Your task to perform on an android device: change text size in settings app Image 0: 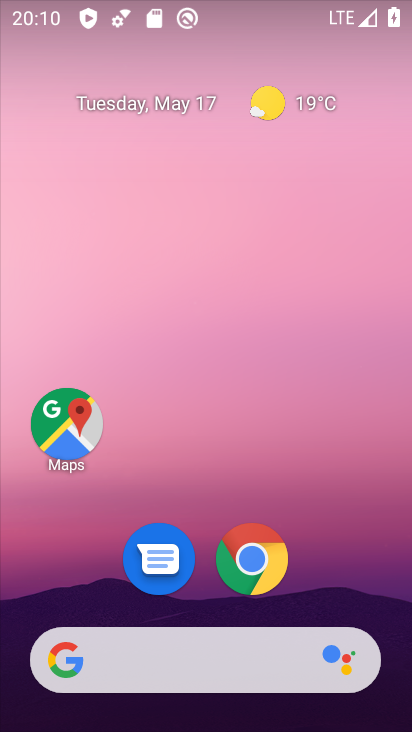
Step 0: drag from (200, 574) to (148, 0)
Your task to perform on an android device: change text size in settings app Image 1: 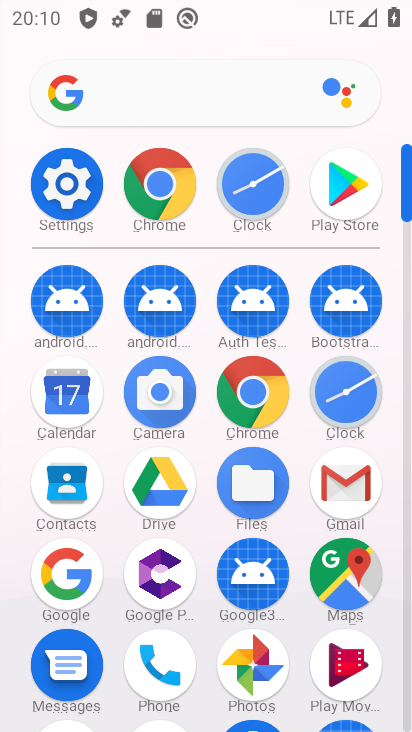
Step 1: click (66, 190)
Your task to perform on an android device: change text size in settings app Image 2: 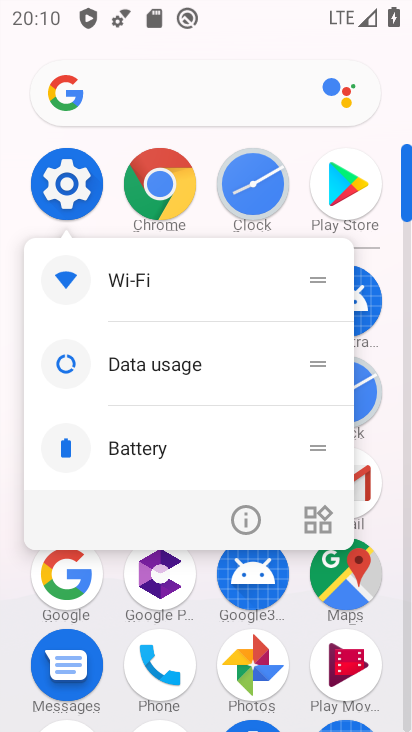
Step 2: click (241, 530)
Your task to perform on an android device: change text size in settings app Image 3: 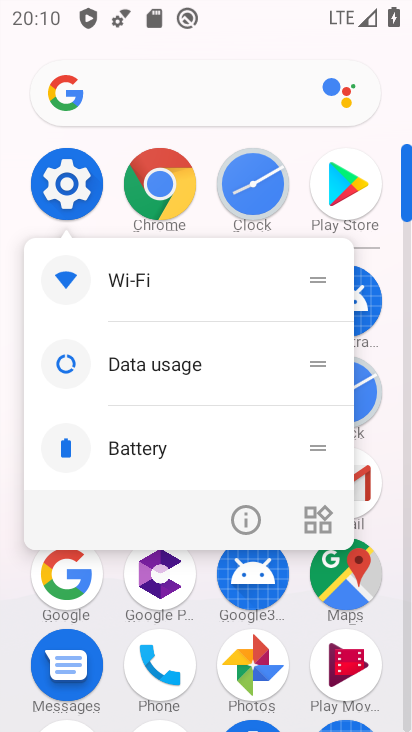
Step 3: click (240, 529)
Your task to perform on an android device: change text size in settings app Image 4: 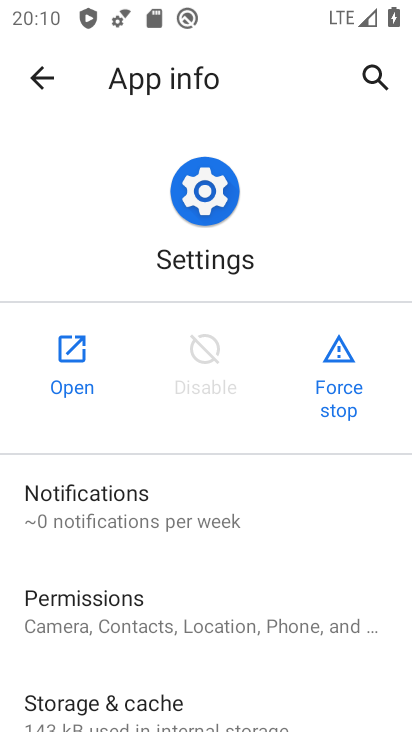
Step 4: click (60, 355)
Your task to perform on an android device: change text size in settings app Image 5: 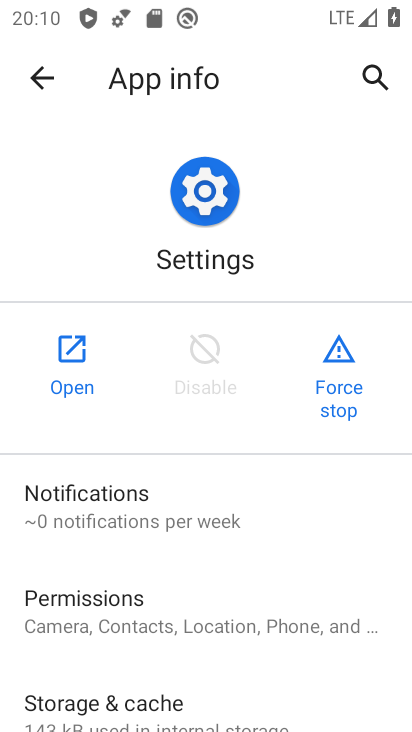
Step 5: click (60, 355)
Your task to perform on an android device: change text size in settings app Image 6: 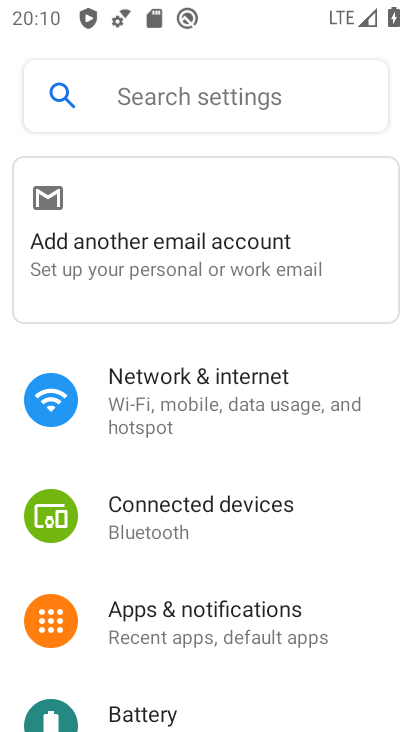
Step 6: drag from (184, 602) to (289, 21)
Your task to perform on an android device: change text size in settings app Image 7: 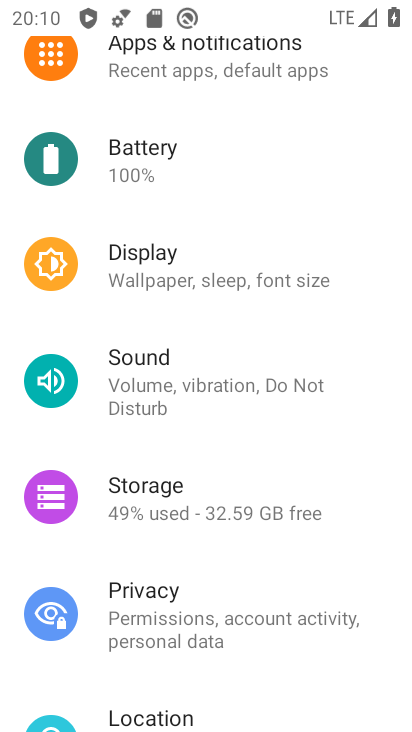
Step 7: drag from (188, 684) to (289, 254)
Your task to perform on an android device: change text size in settings app Image 8: 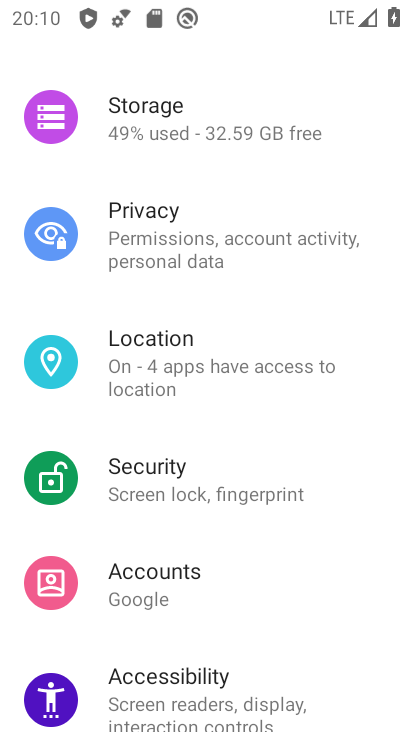
Step 8: drag from (218, 296) to (201, 700)
Your task to perform on an android device: change text size in settings app Image 9: 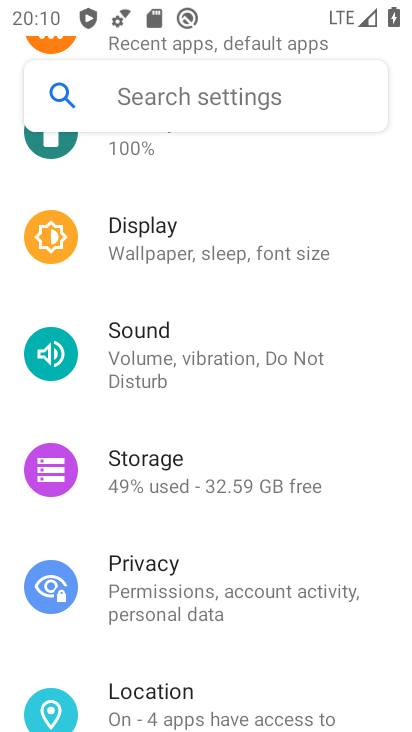
Step 9: click (177, 245)
Your task to perform on an android device: change text size in settings app Image 10: 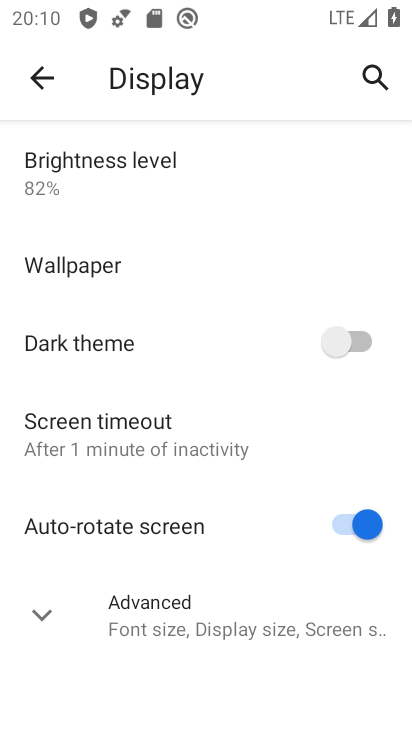
Step 10: click (139, 606)
Your task to perform on an android device: change text size in settings app Image 11: 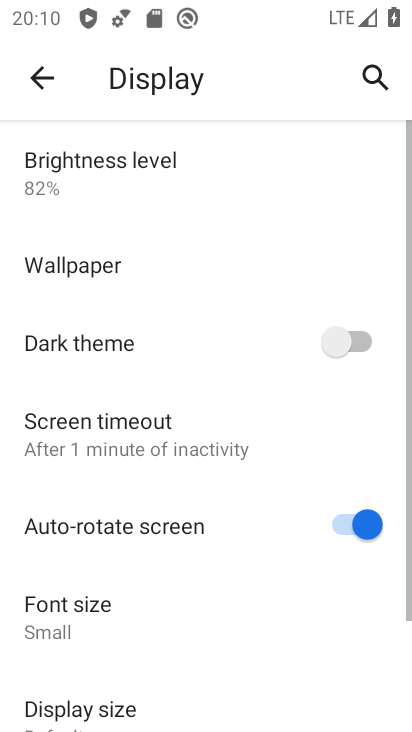
Step 11: drag from (143, 584) to (289, 167)
Your task to perform on an android device: change text size in settings app Image 12: 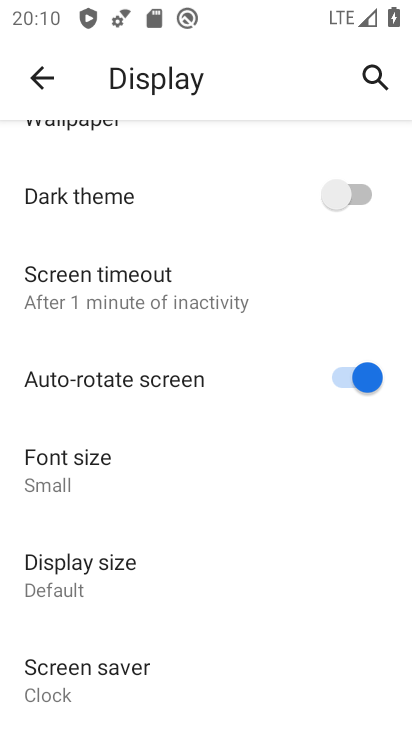
Step 12: click (82, 470)
Your task to perform on an android device: change text size in settings app Image 13: 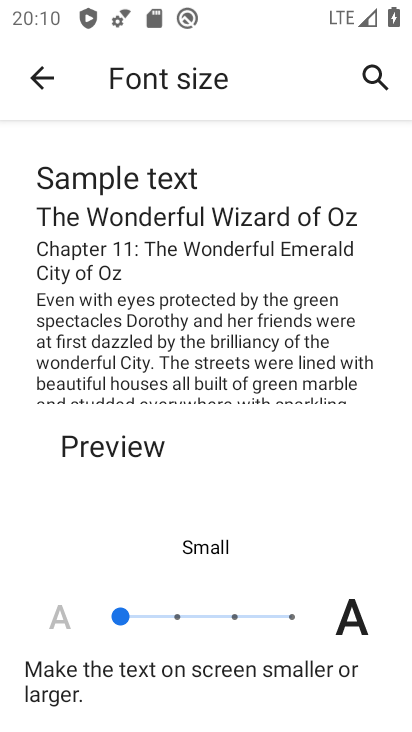
Step 13: click (167, 613)
Your task to perform on an android device: change text size in settings app Image 14: 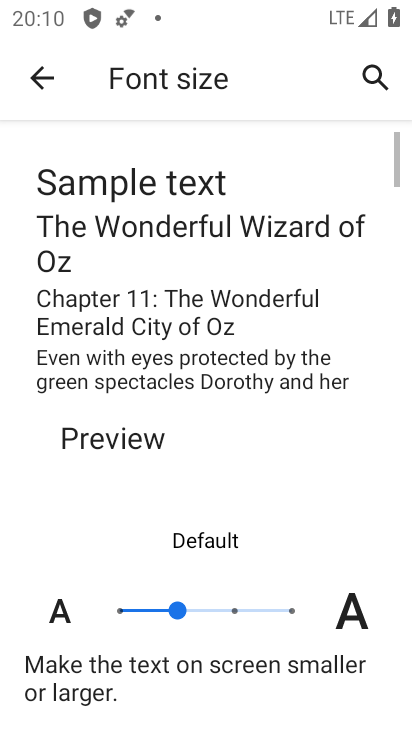
Step 14: task complete